Your task to perform on an android device: open app "Booking.com: Hotels and more" (install if not already installed), go to login, and select forgot password Image 0: 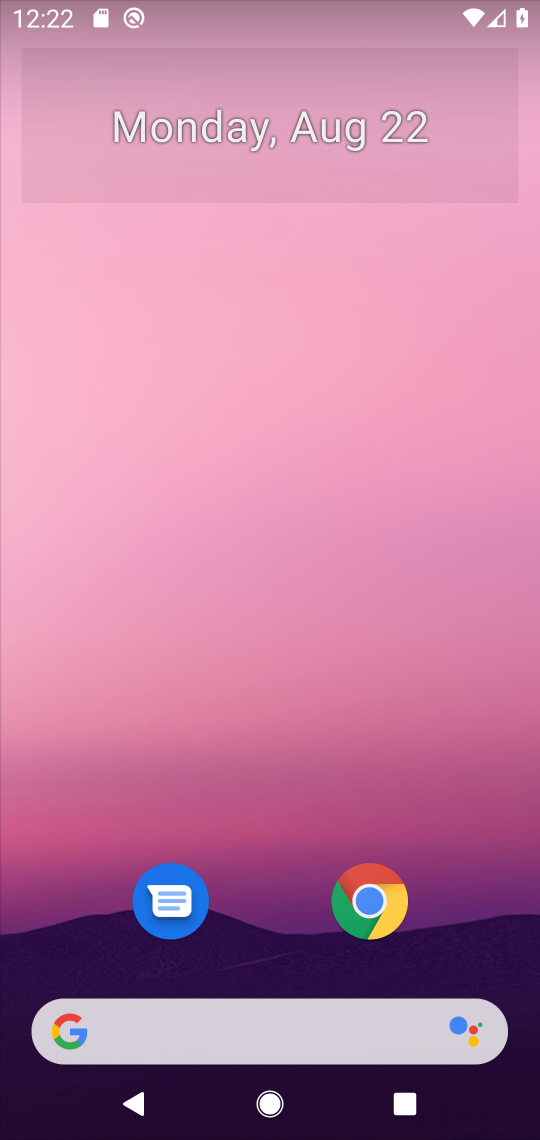
Step 0: press home button
Your task to perform on an android device: open app "Booking.com: Hotels and more" (install if not already installed), go to login, and select forgot password Image 1: 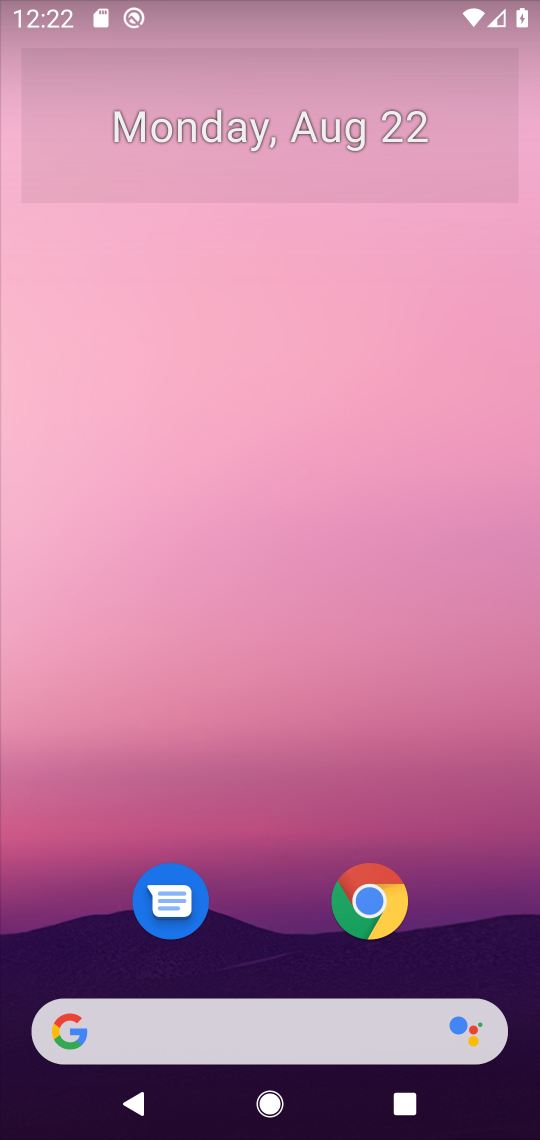
Step 1: drag from (238, 973) to (231, 6)
Your task to perform on an android device: open app "Booking.com: Hotels and more" (install if not already installed), go to login, and select forgot password Image 2: 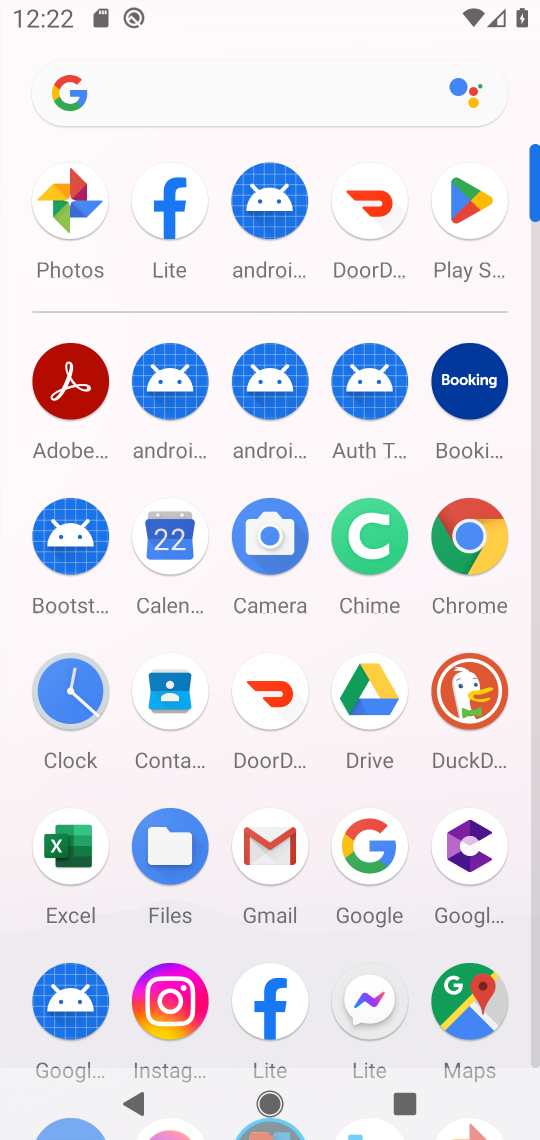
Step 2: click (456, 427)
Your task to perform on an android device: open app "Booking.com: Hotels and more" (install if not already installed), go to login, and select forgot password Image 3: 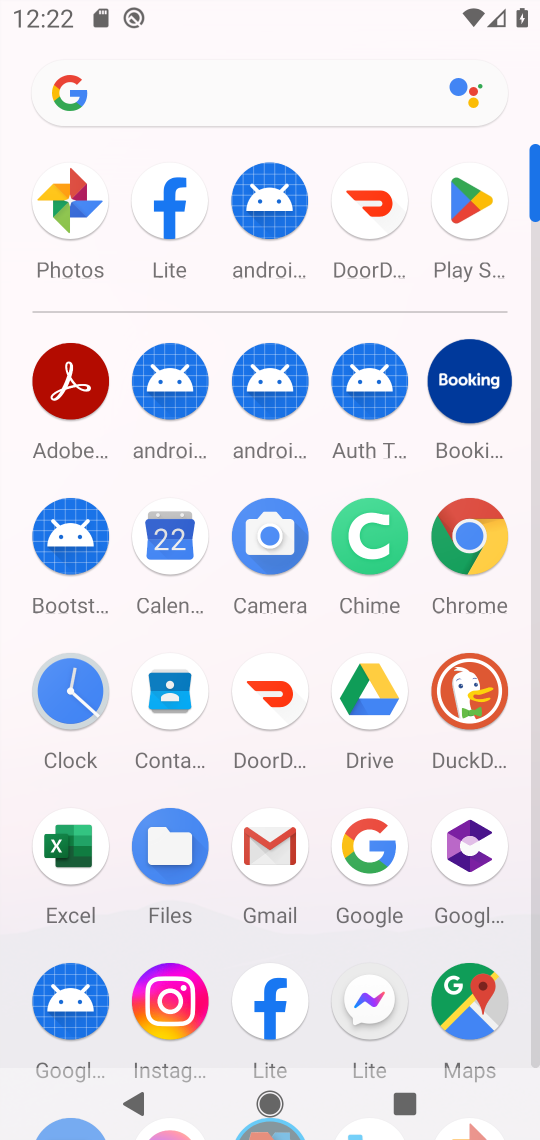
Step 3: task complete